Your task to perform on an android device: Go to accessibility settings Image 0: 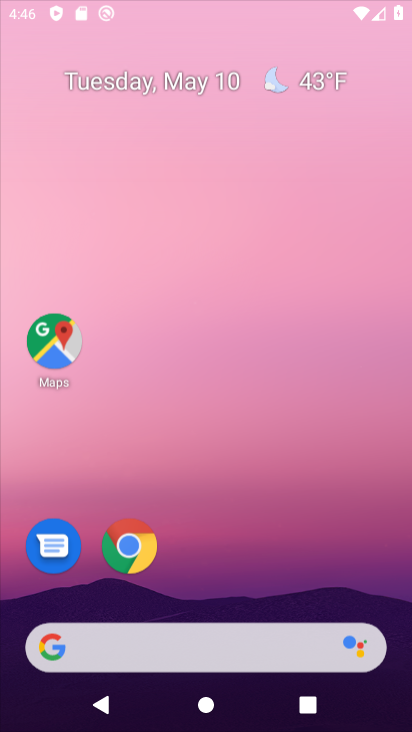
Step 0: drag from (180, 334) to (96, 73)
Your task to perform on an android device: Go to accessibility settings Image 1: 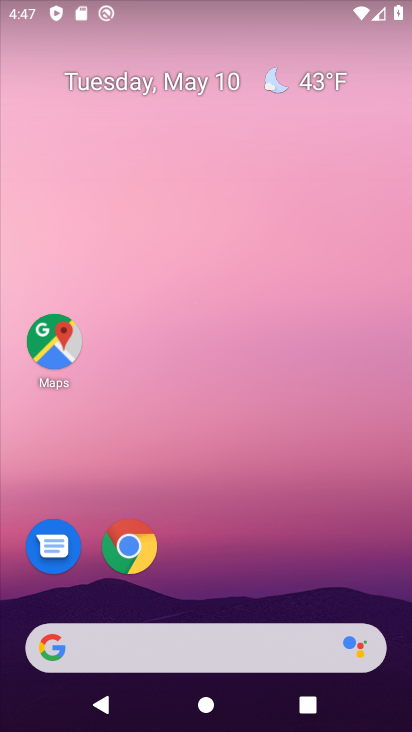
Step 1: drag from (262, 549) to (103, 18)
Your task to perform on an android device: Go to accessibility settings Image 2: 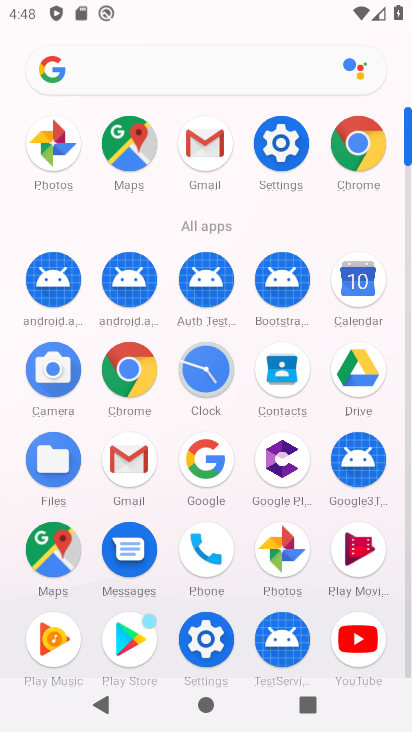
Step 2: click (277, 152)
Your task to perform on an android device: Go to accessibility settings Image 3: 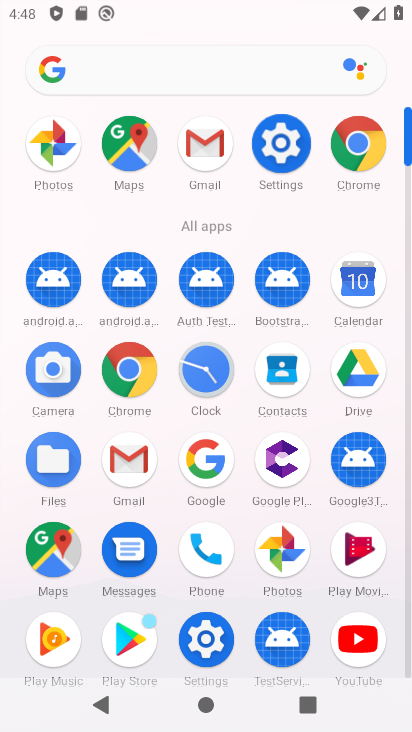
Step 3: click (277, 152)
Your task to perform on an android device: Go to accessibility settings Image 4: 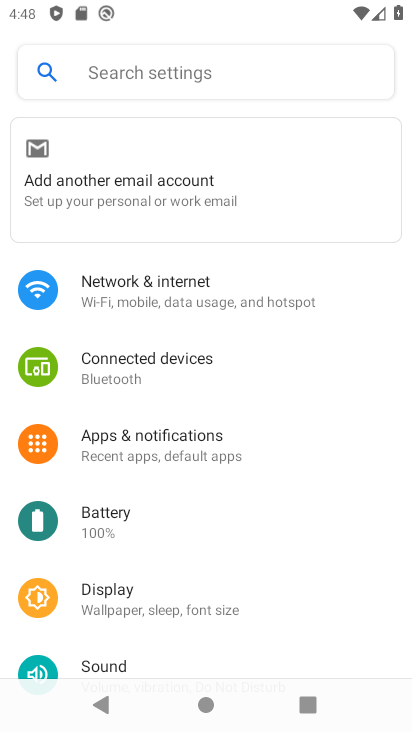
Step 4: drag from (145, 510) to (71, 161)
Your task to perform on an android device: Go to accessibility settings Image 5: 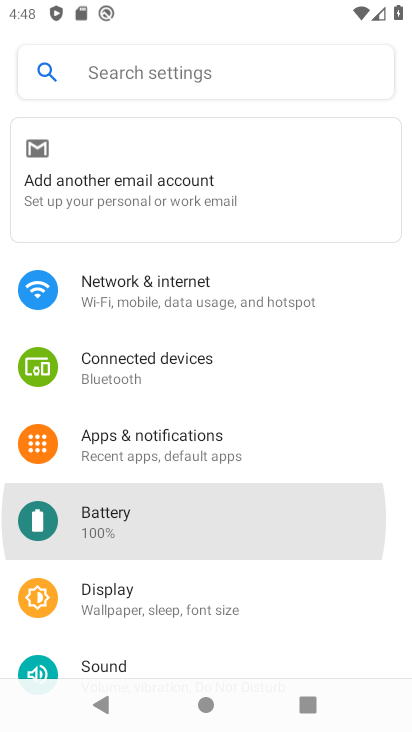
Step 5: drag from (187, 447) to (126, 183)
Your task to perform on an android device: Go to accessibility settings Image 6: 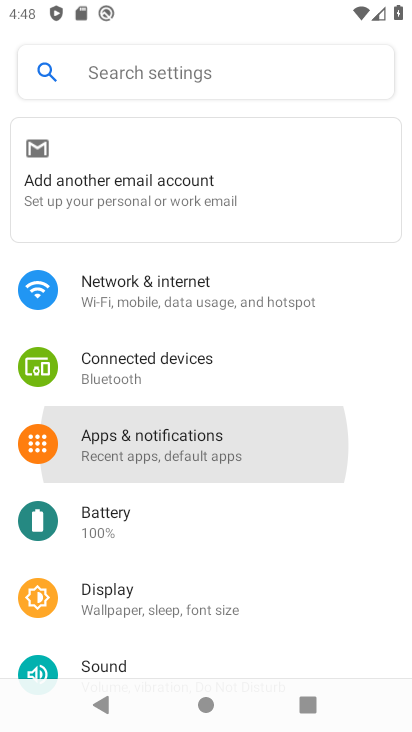
Step 6: drag from (176, 520) to (78, 119)
Your task to perform on an android device: Go to accessibility settings Image 7: 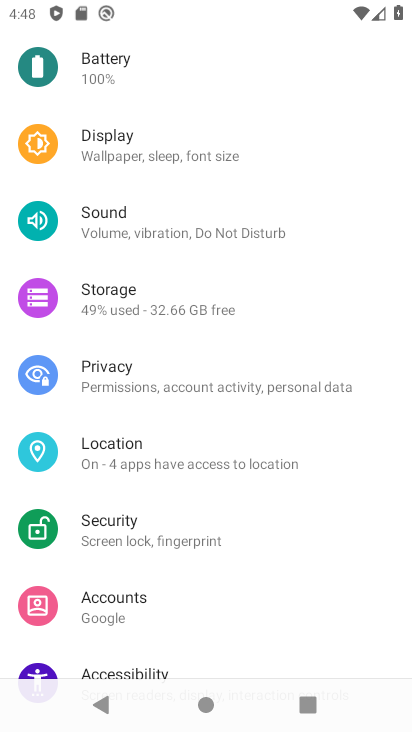
Step 7: drag from (151, 602) to (67, 177)
Your task to perform on an android device: Go to accessibility settings Image 8: 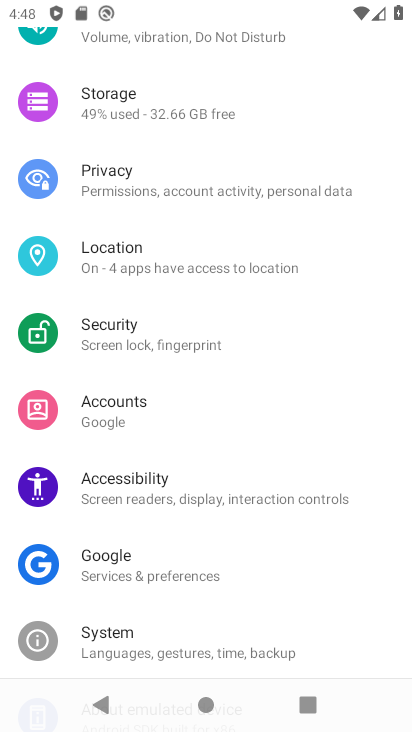
Step 8: click (128, 491)
Your task to perform on an android device: Go to accessibility settings Image 9: 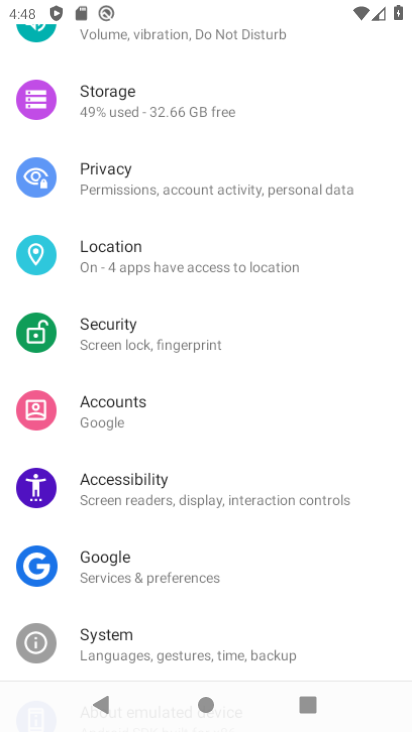
Step 9: click (128, 491)
Your task to perform on an android device: Go to accessibility settings Image 10: 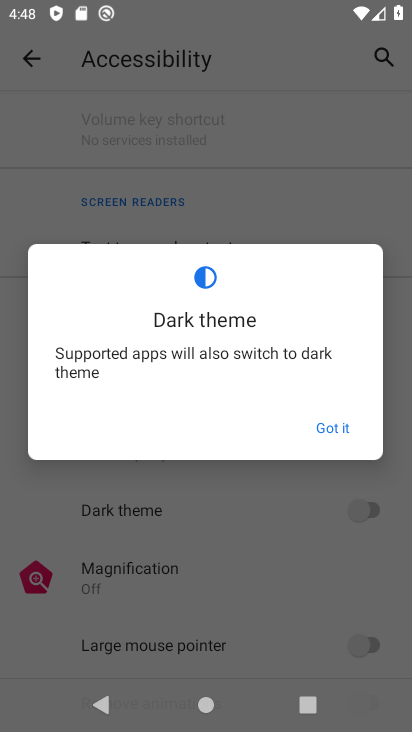
Step 10: click (347, 427)
Your task to perform on an android device: Go to accessibility settings Image 11: 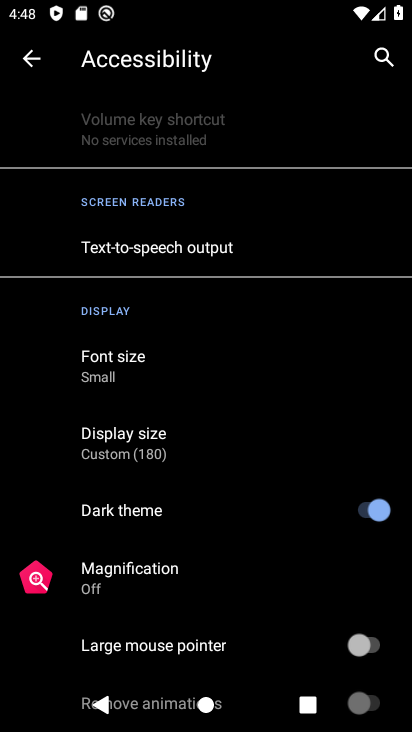
Step 11: click (374, 506)
Your task to perform on an android device: Go to accessibility settings Image 12: 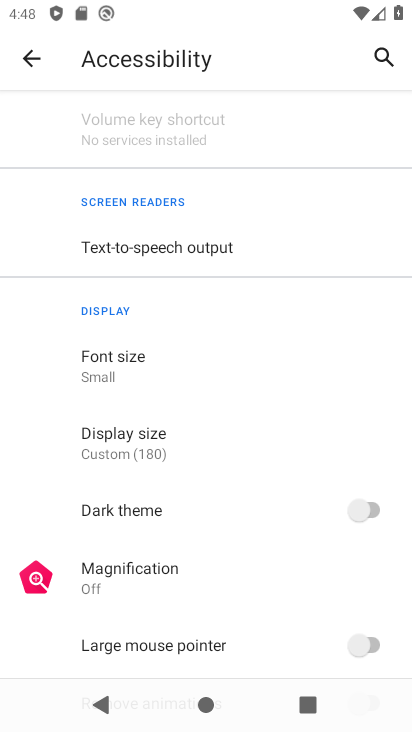
Step 12: task complete